Your task to perform on an android device: Go to location settings Image 0: 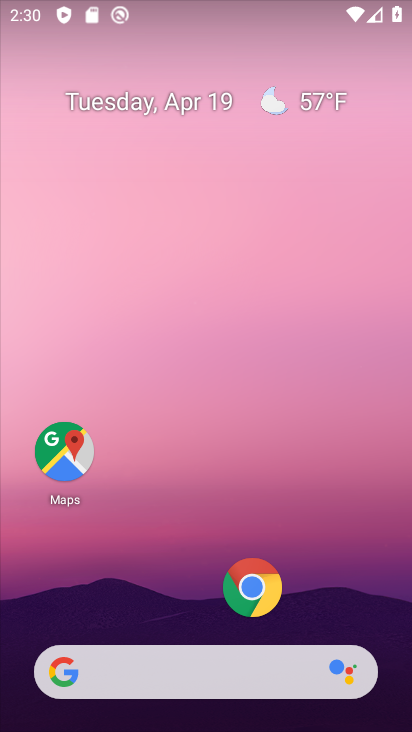
Step 0: drag from (182, 603) to (301, 6)
Your task to perform on an android device: Go to location settings Image 1: 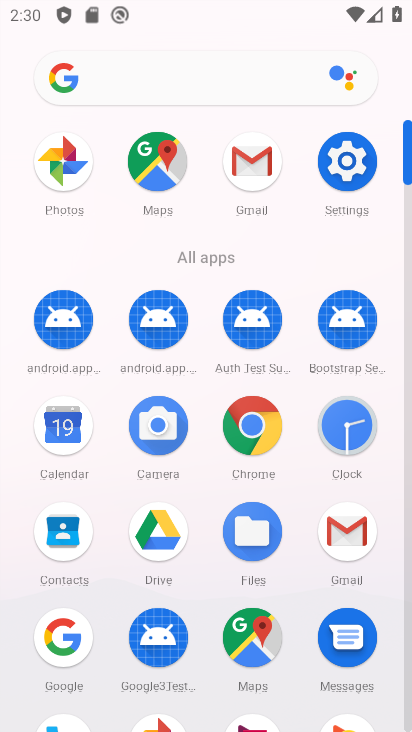
Step 1: click (343, 168)
Your task to perform on an android device: Go to location settings Image 2: 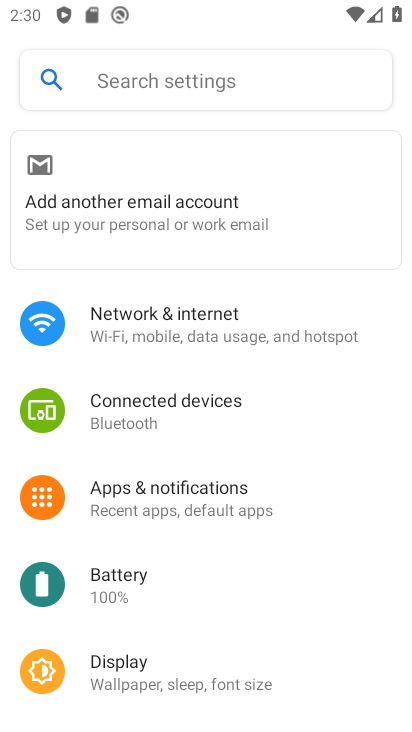
Step 2: drag from (191, 546) to (230, 129)
Your task to perform on an android device: Go to location settings Image 3: 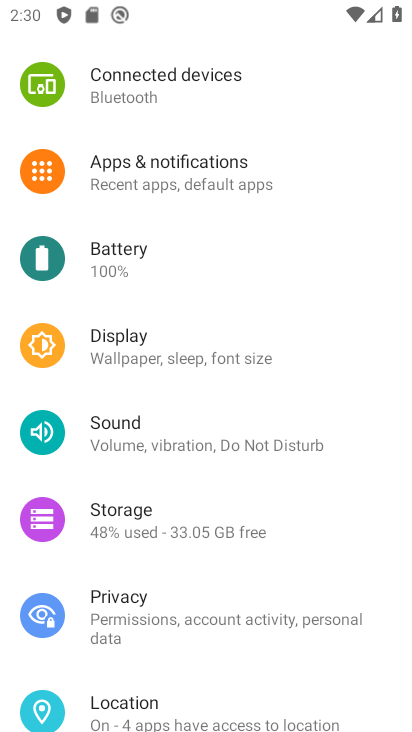
Step 3: drag from (120, 614) to (163, 345)
Your task to perform on an android device: Go to location settings Image 4: 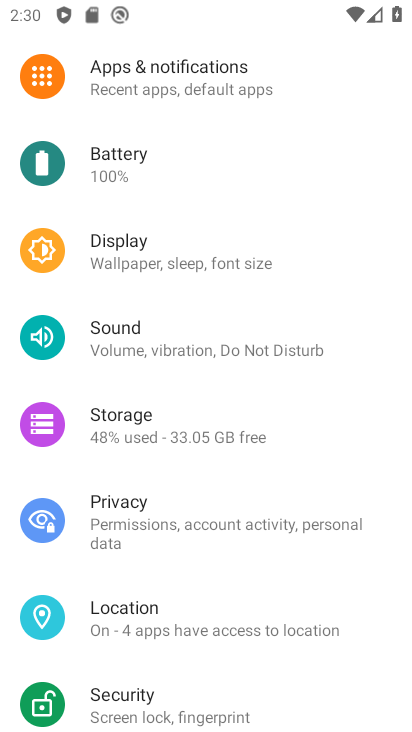
Step 4: click (101, 613)
Your task to perform on an android device: Go to location settings Image 5: 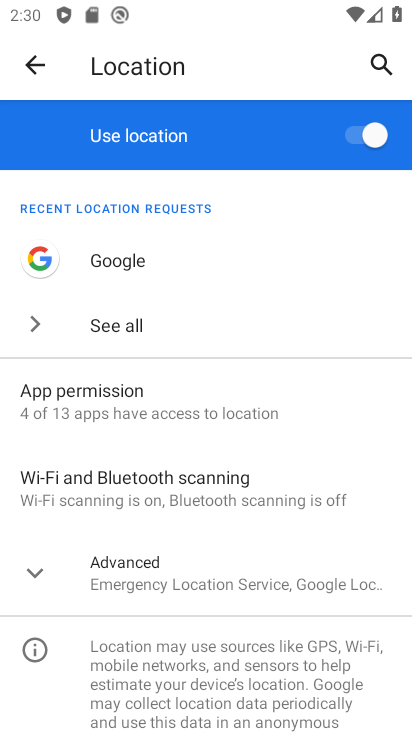
Step 5: task complete